Your task to perform on an android device: What's the news in South Korea? Image 0: 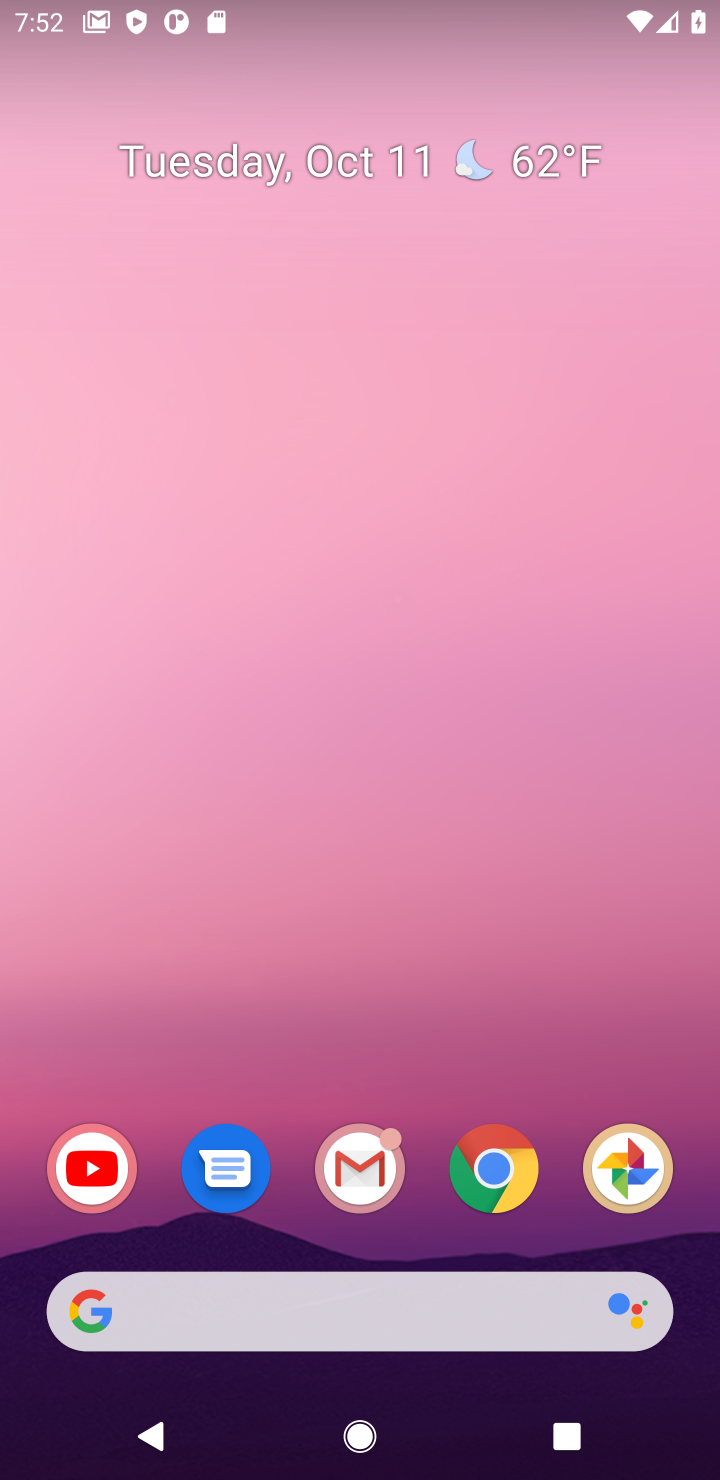
Step 0: click (492, 1167)
Your task to perform on an android device: What's the news in South Korea? Image 1: 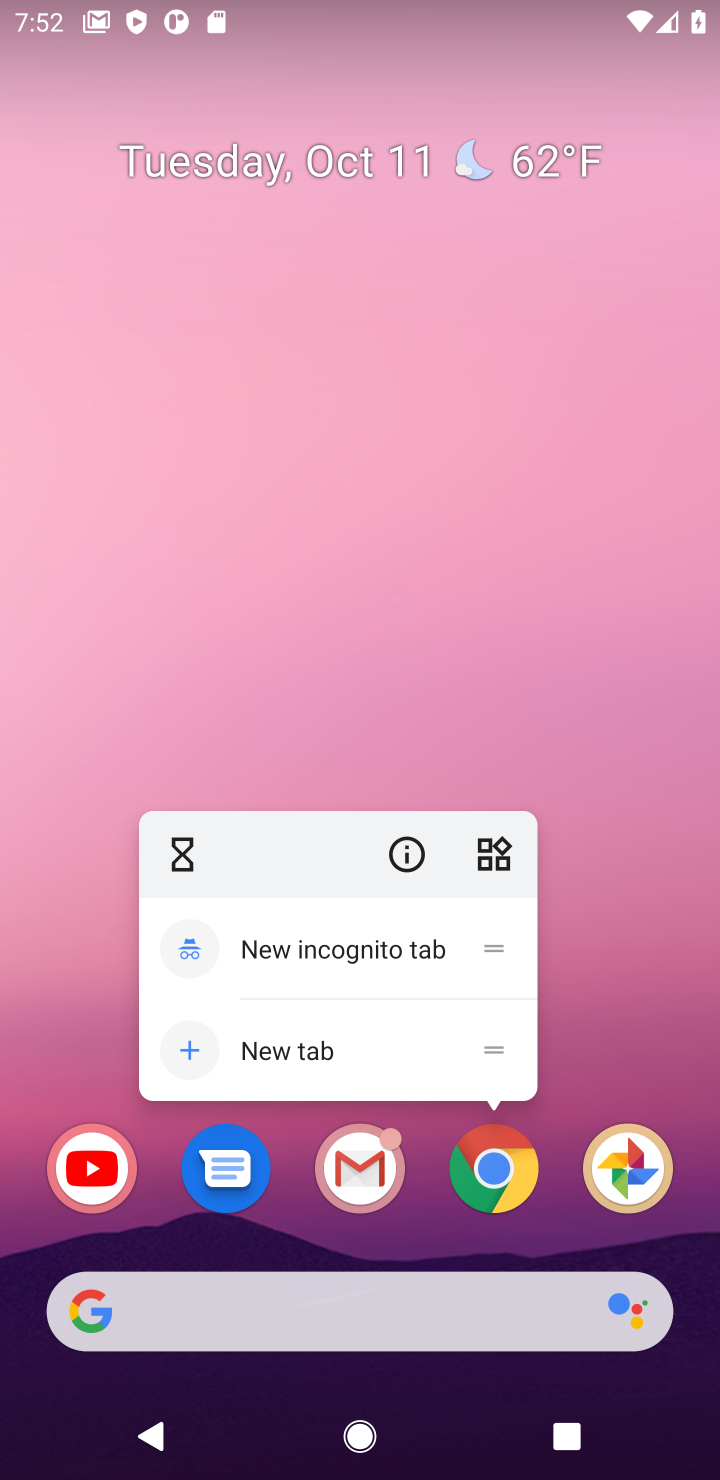
Step 1: press back button
Your task to perform on an android device: What's the news in South Korea? Image 2: 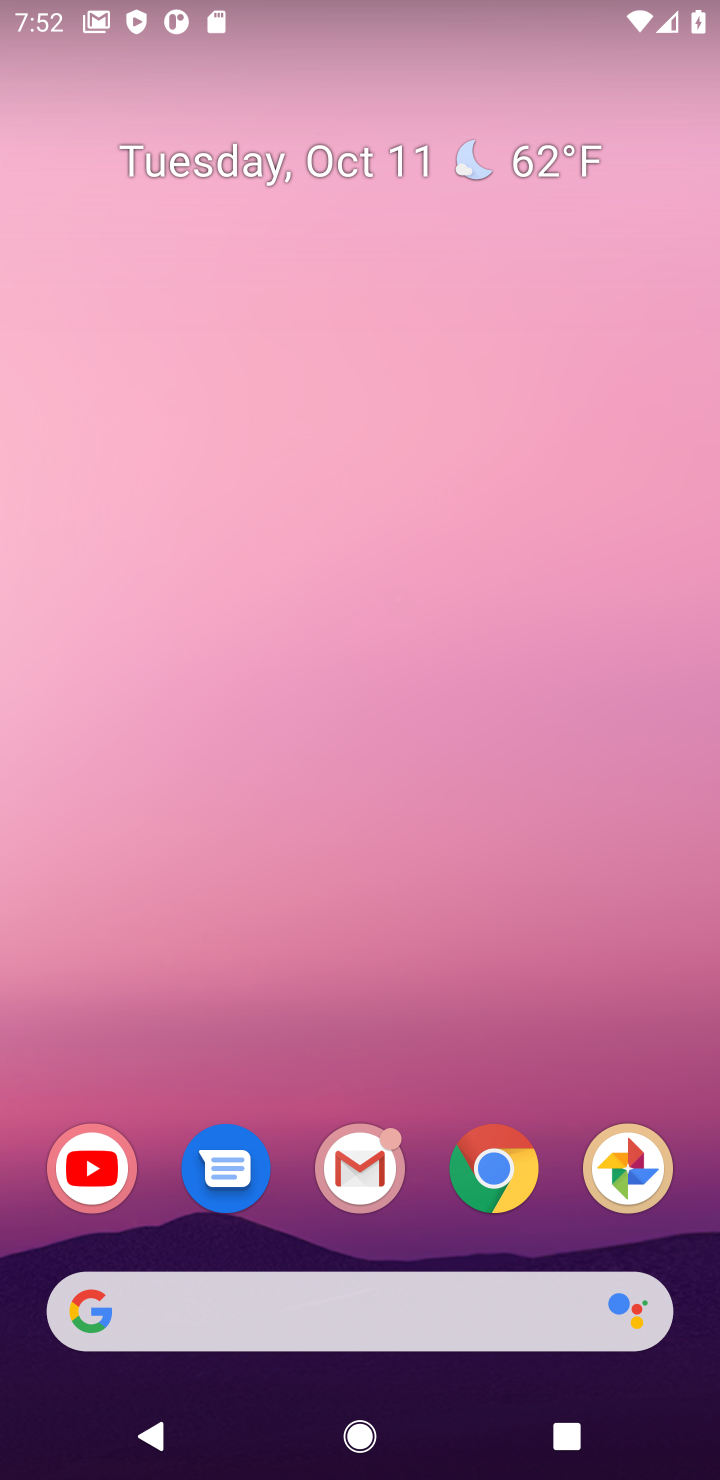
Step 2: click (521, 1181)
Your task to perform on an android device: What's the news in South Korea? Image 3: 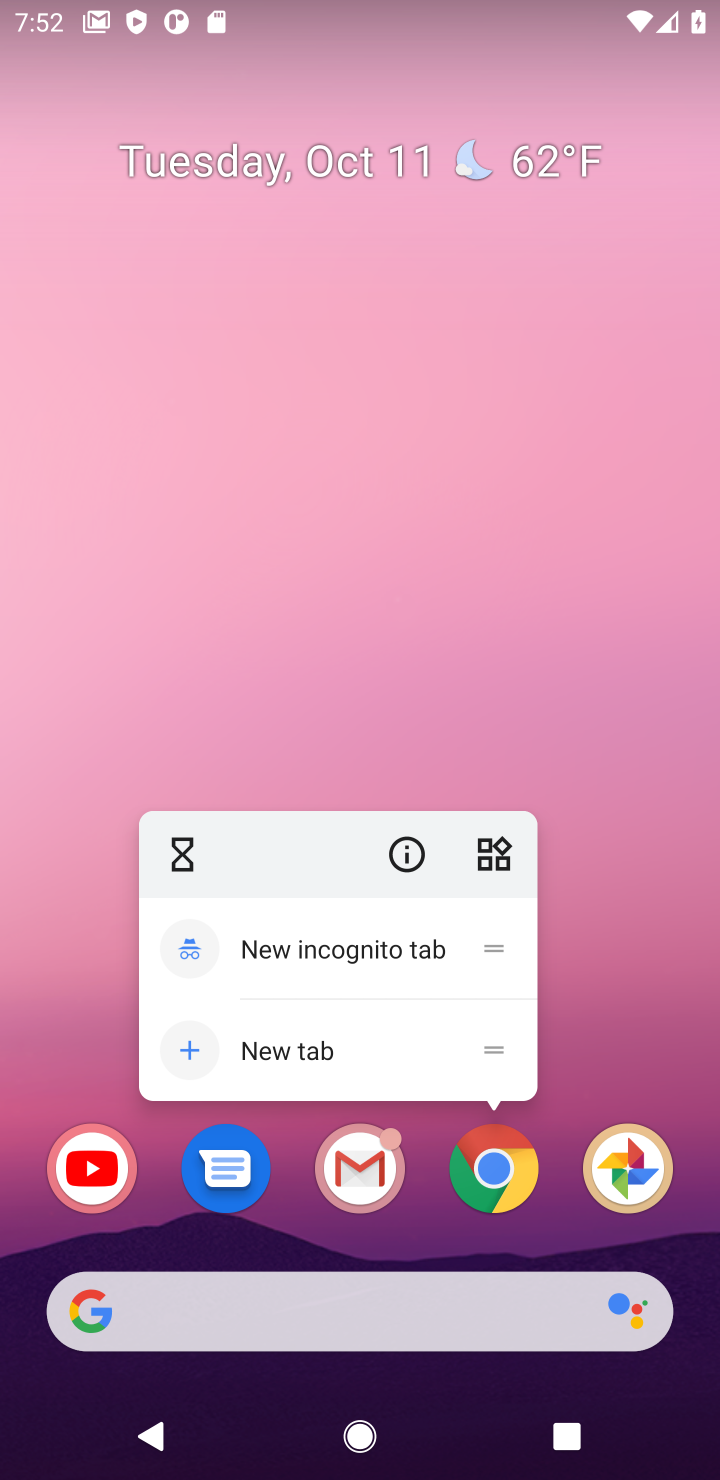
Step 3: click (495, 1192)
Your task to perform on an android device: What's the news in South Korea? Image 4: 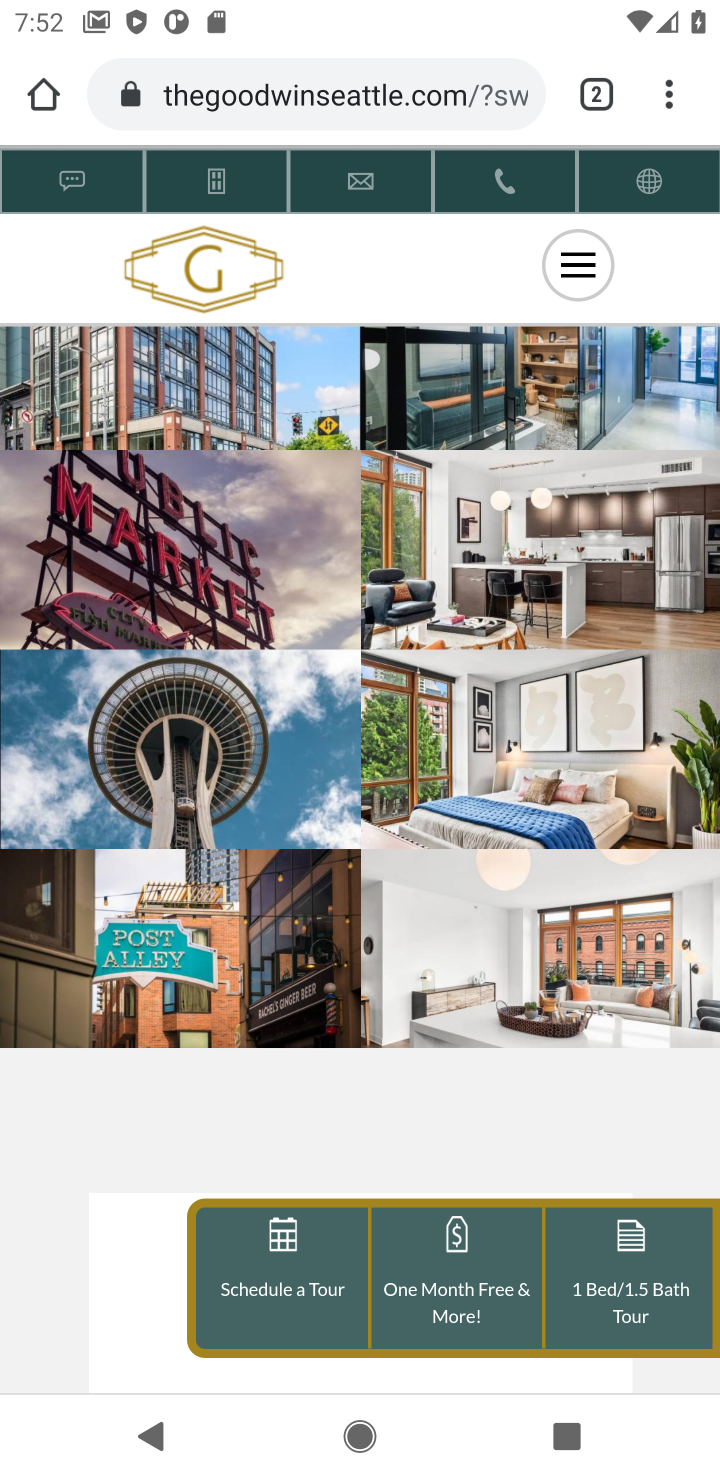
Step 4: click (336, 81)
Your task to perform on an android device: What's the news in South Korea? Image 5: 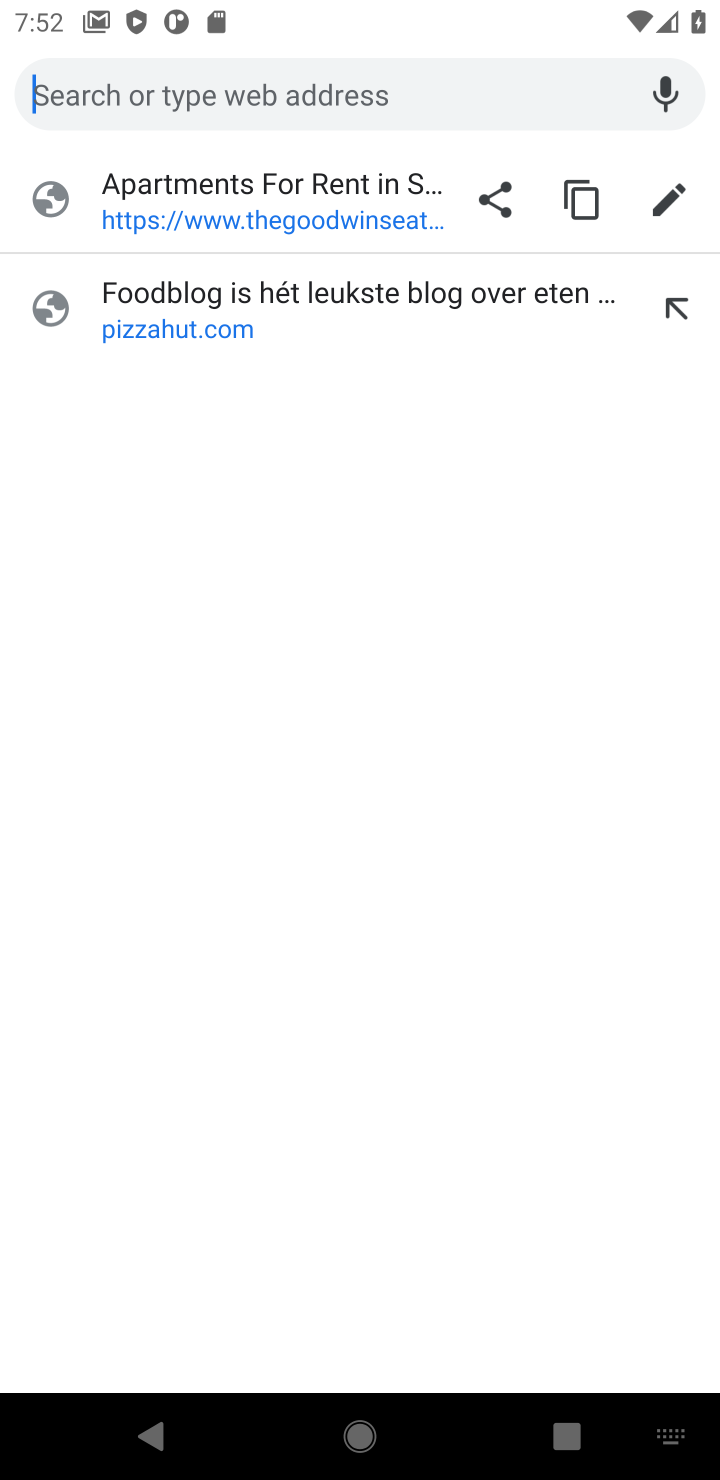
Step 5: type "news in south korea"
Your task to perform on an android device: What's the news in South Korea? Image 6: 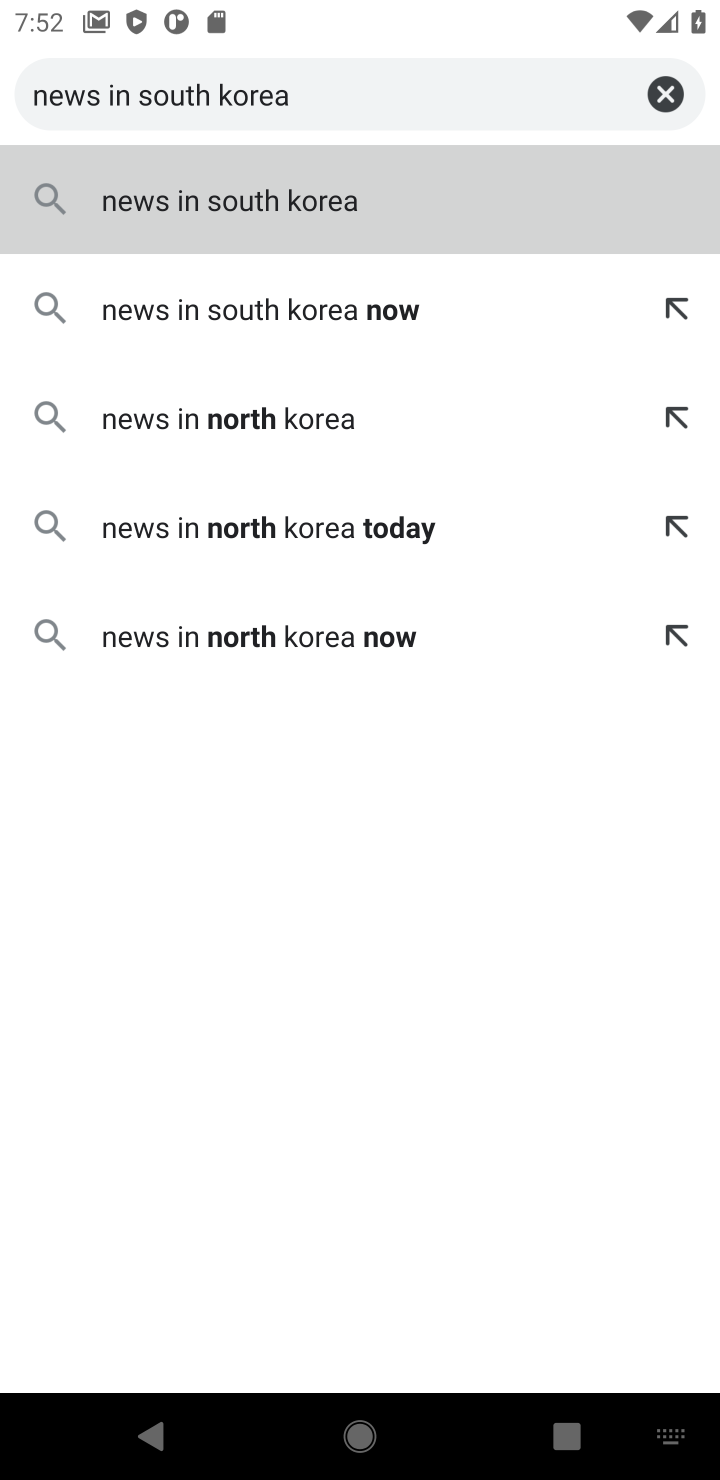
Step 6: click (244, 209)
Your task to perform on an android device: What's the news in South Korea? Image 7: 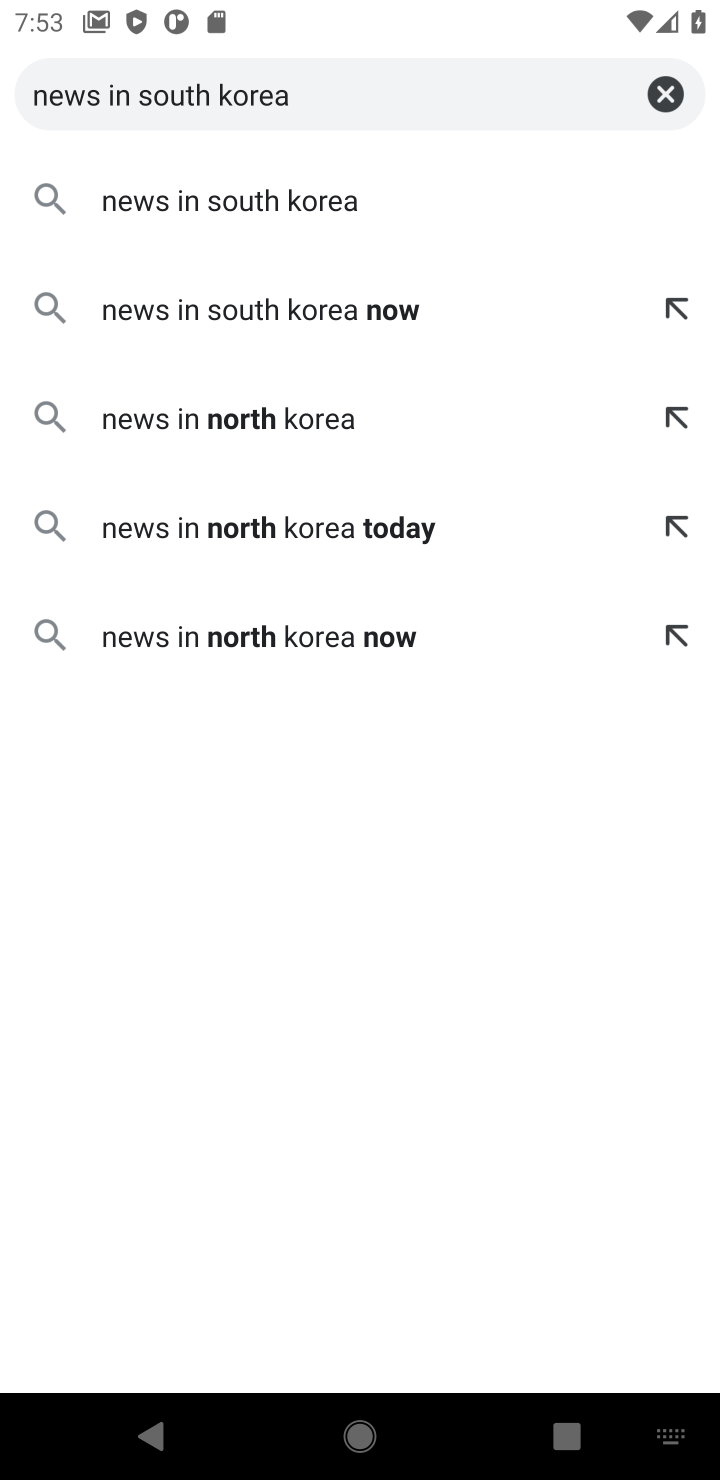
Step 7: click (313, 209)
Your task to perform on an android device: What's the news in South Korea? Image 8: 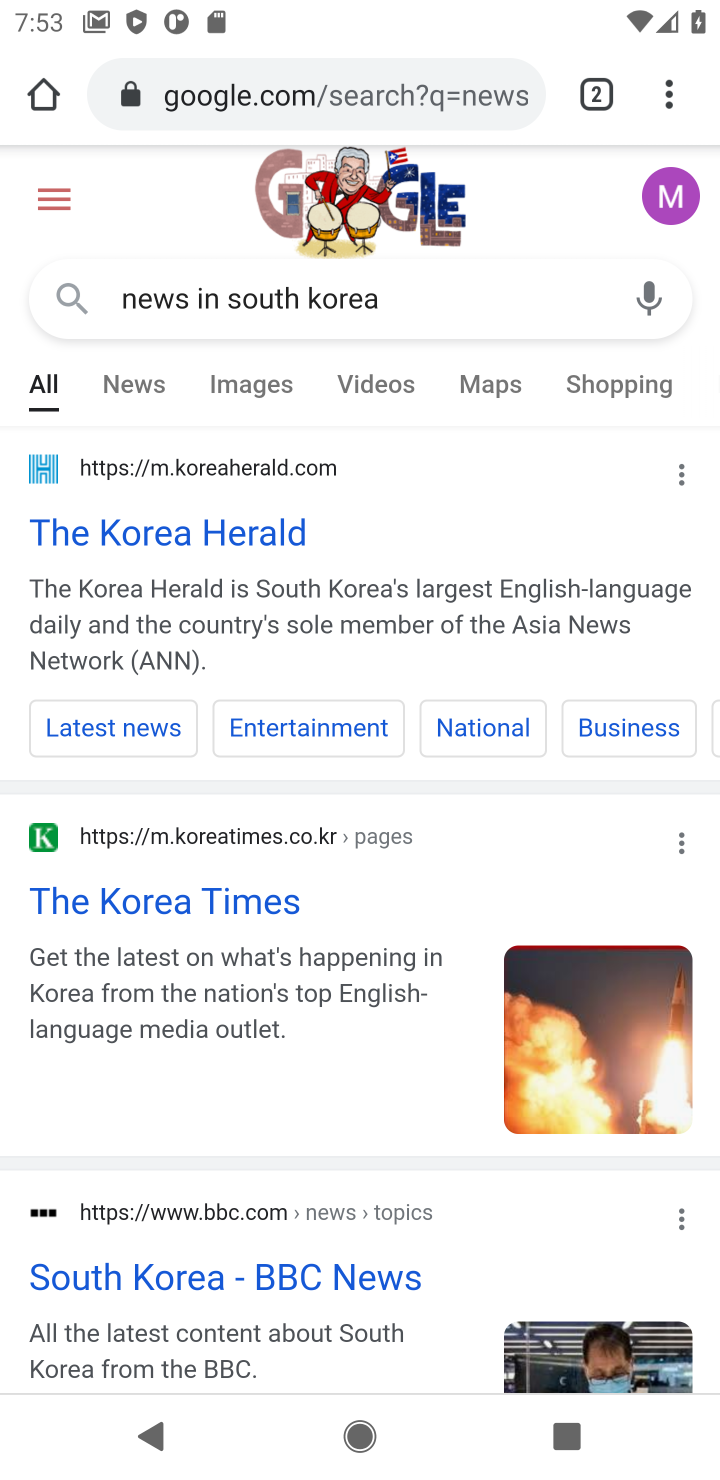
Step 8: click (194, 1276)
Your task to perform on an android device: What's the news in South Korea? Image 9: 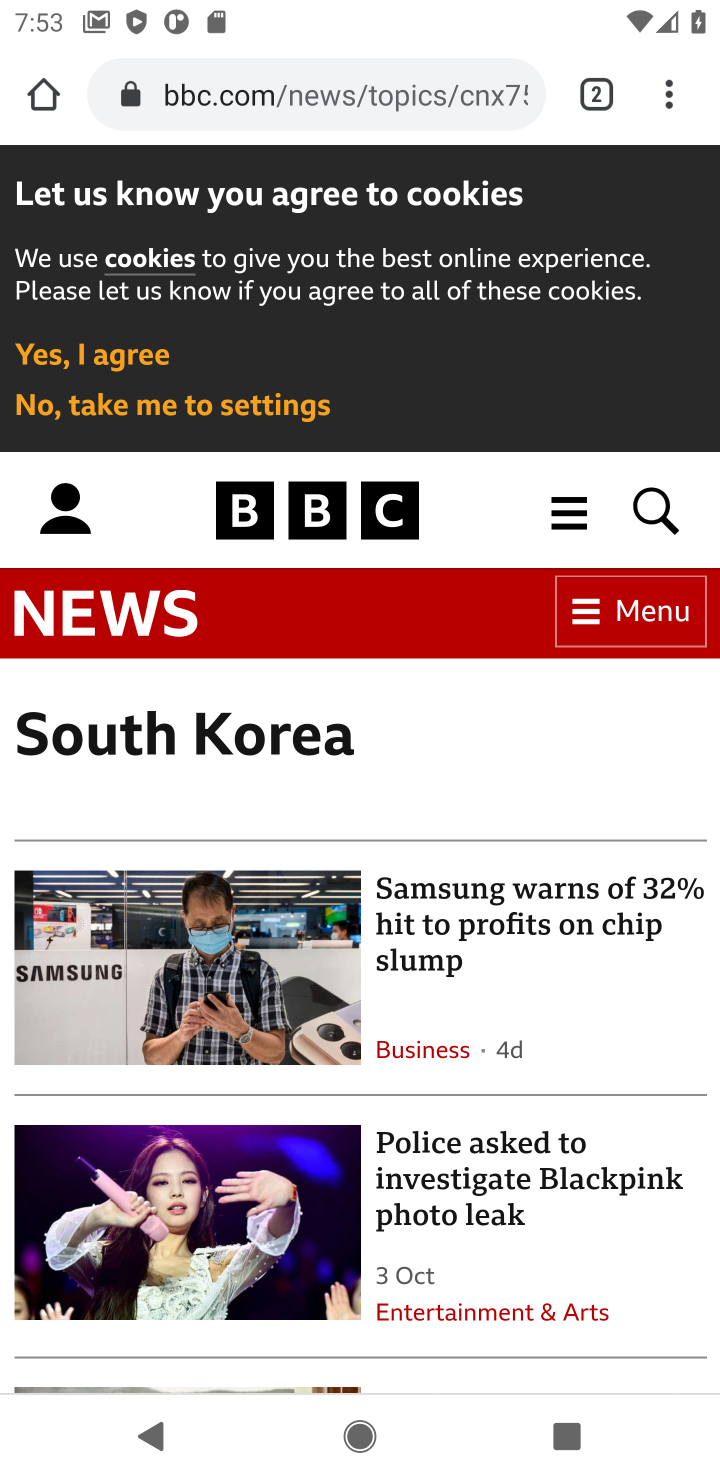
Step 9: drag from (558, 1002) to (534, 732)
Your task to perform on an android device: What's the news in South Korea? Image 10: 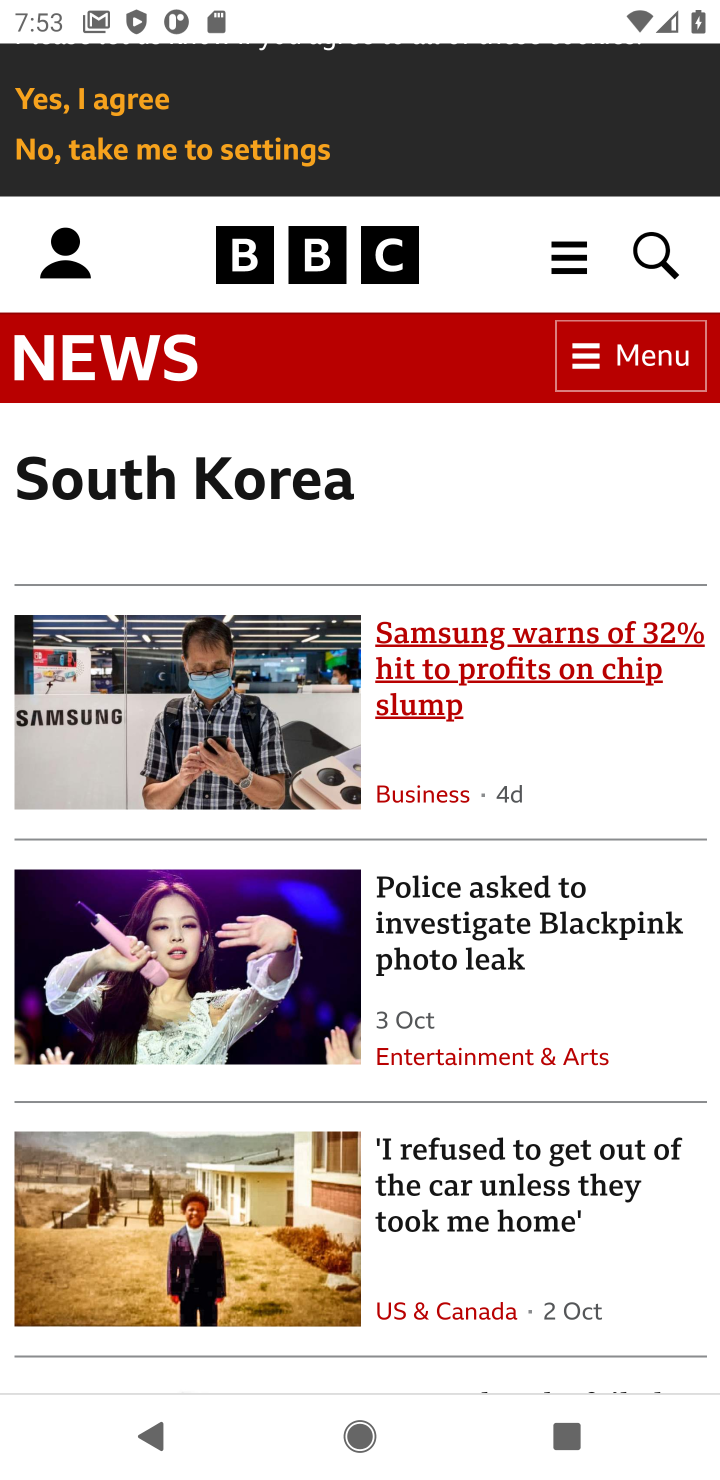
Step 10: click (458, 1153)
Your task to perform on an android device: What's the news in South Korea? Image 11: 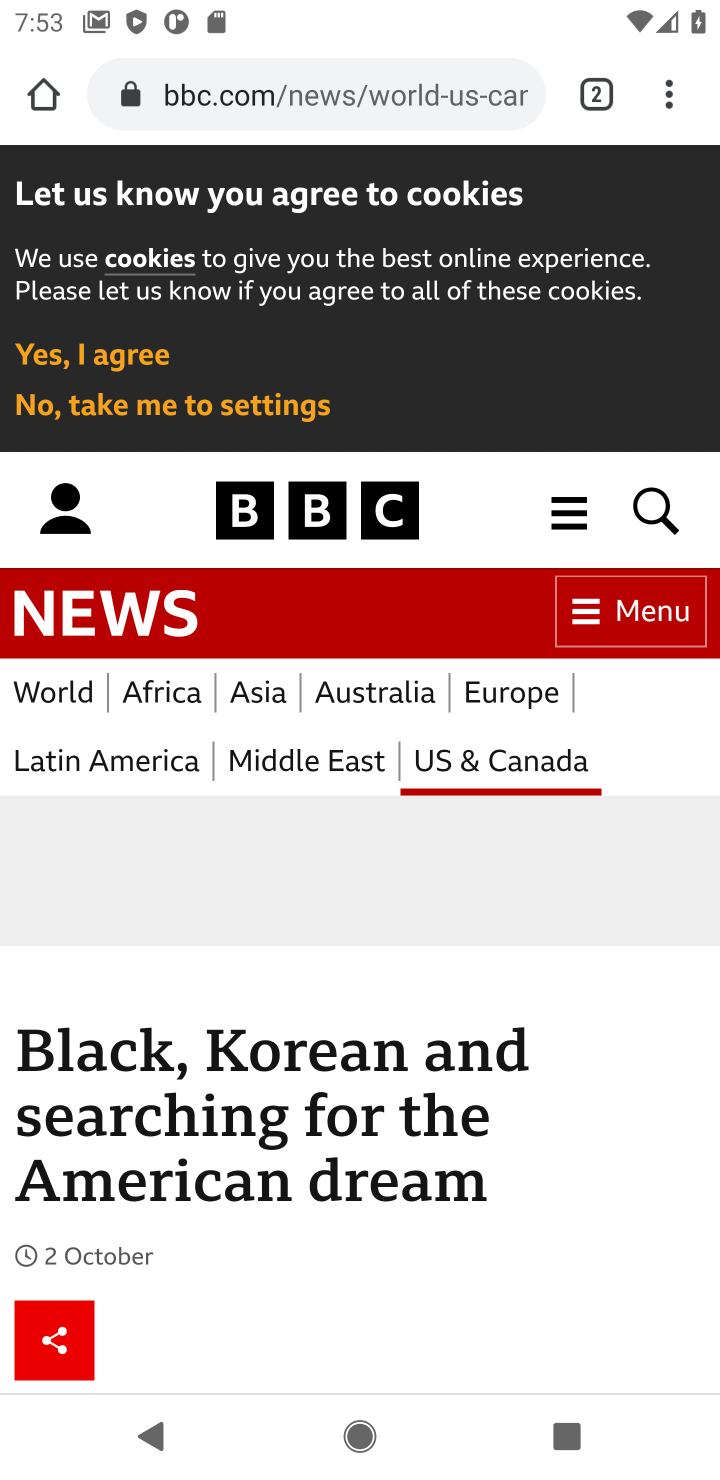
Step 11: task complete